Your task to perform on an android device: Search for alienware area 51 on newegg.com, select the first entry, and add it to the cart. Image 0: 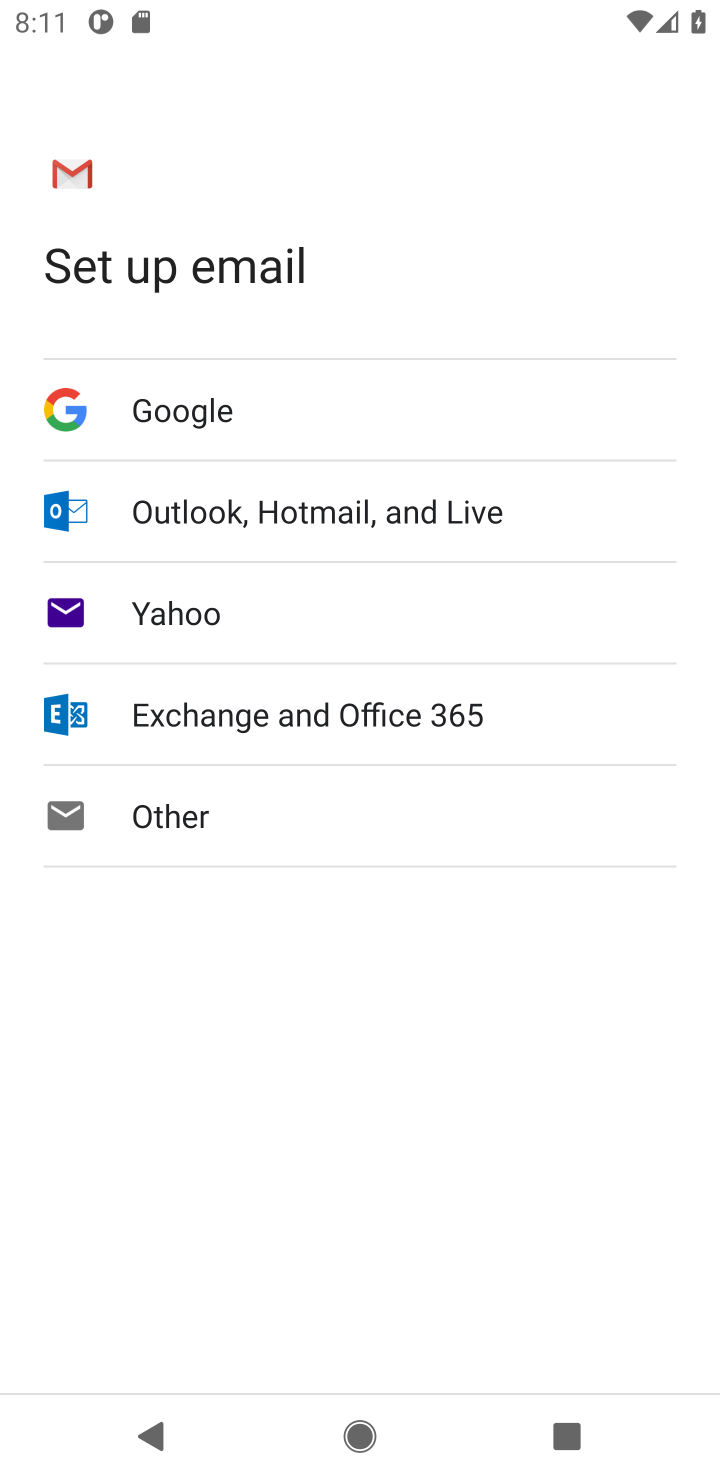
Step 0: press home button
Your task to perform on an android device: Search for alienware area 51 on newegg.com, select the first entry, and add it to the cart. Image 1: 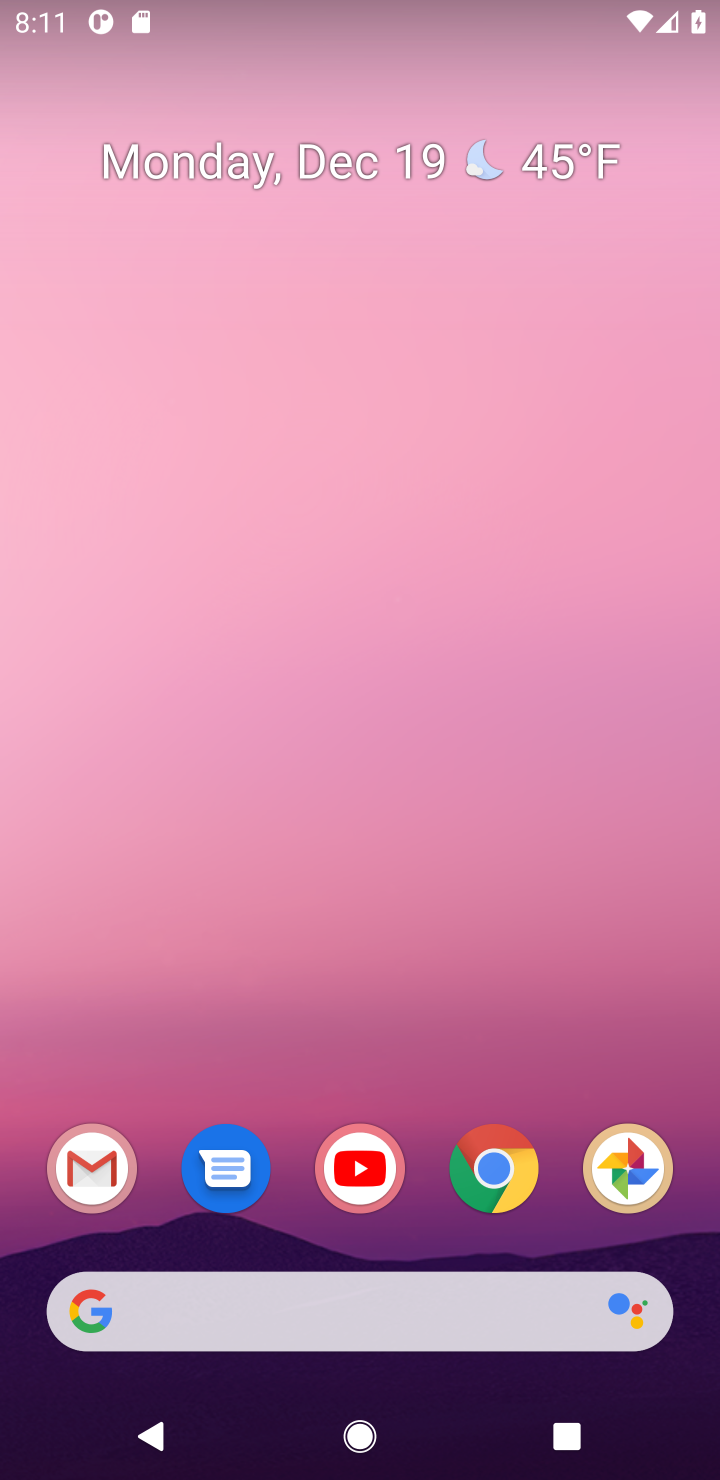
Step 1: click (507, 1179)
Your task to perform on an android device: Search for alienware area 51 on newegg.com, select the first entry, and add it to the cart. Image 2: 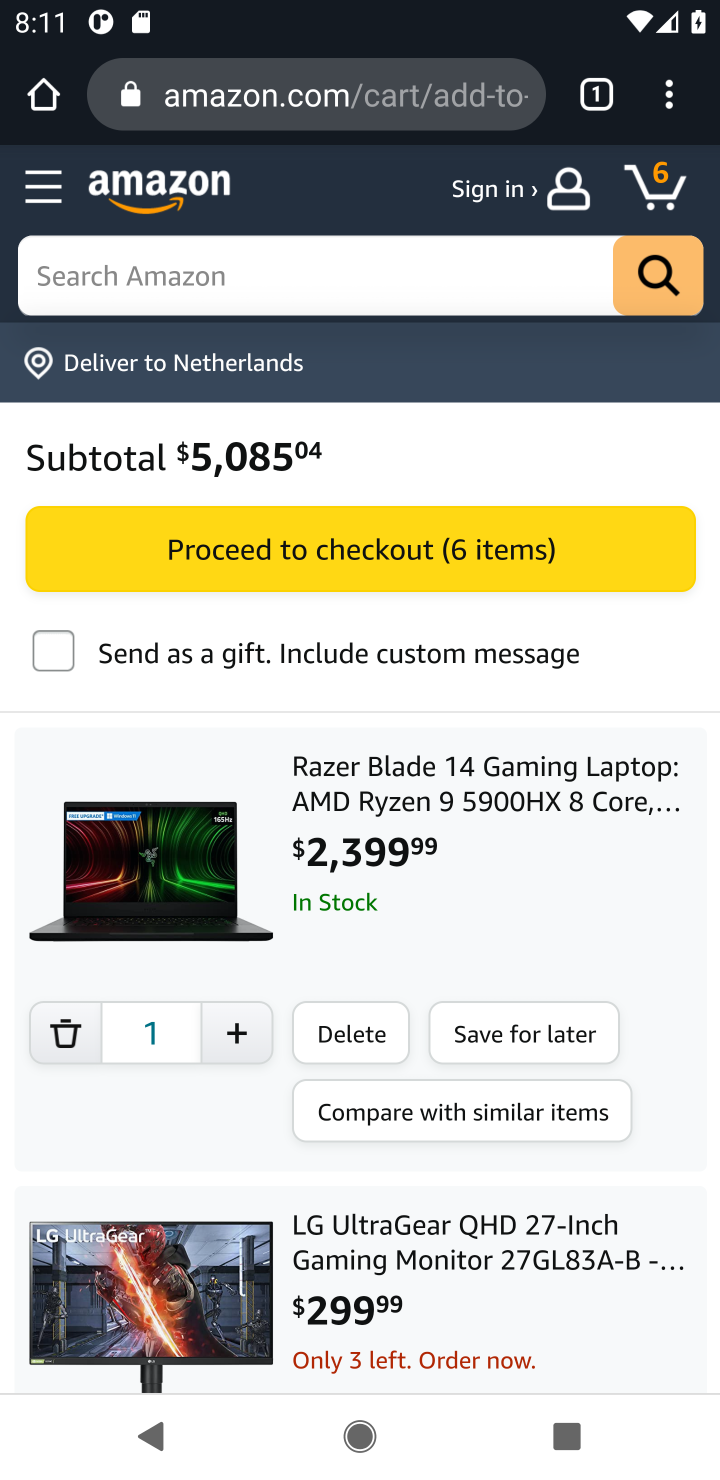
Step 2: click (260, 109)
Your task to perform on an android device: Search for alienware area 51 on newegg.com, select the first entry, and add it to the cart. Image 3: 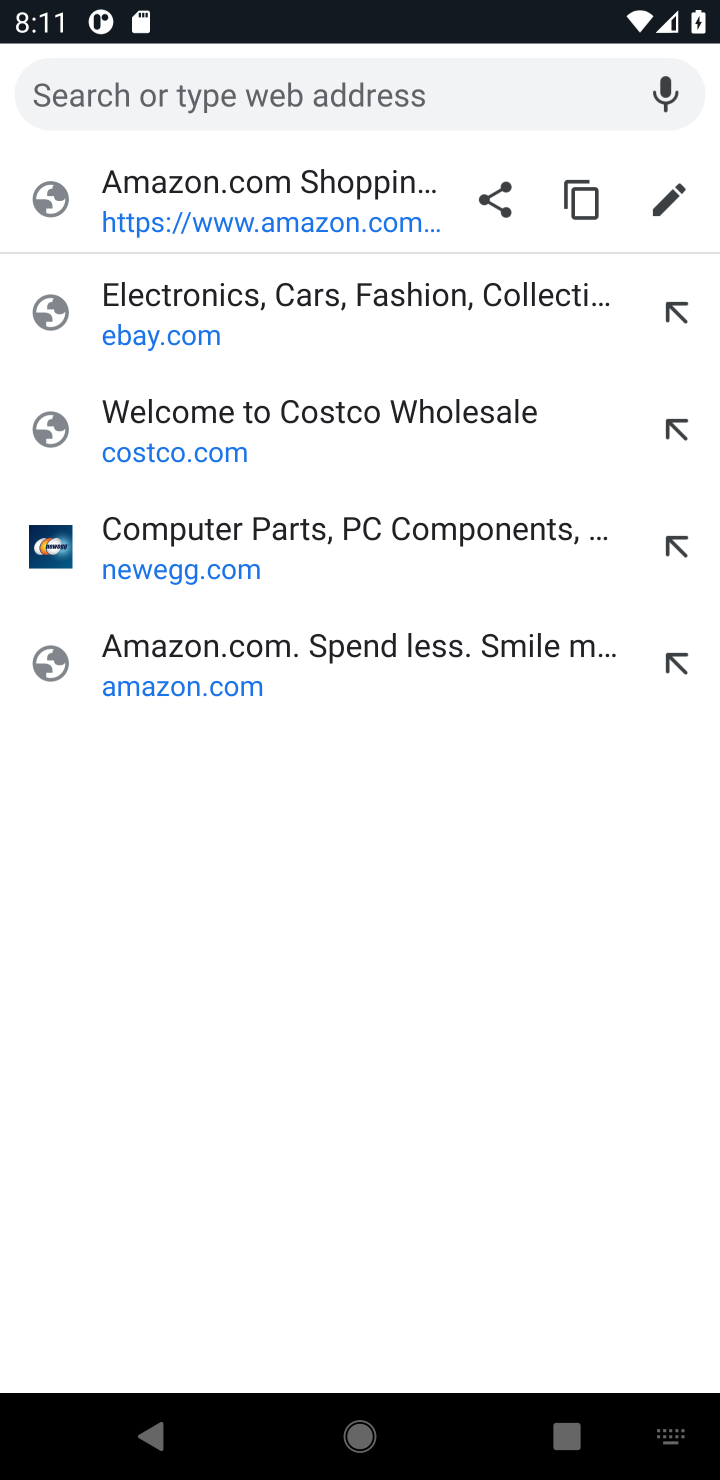
Step 3: click (152, 539)
Your task to perform on an android device: Search for alienware area 51 on newegg.com, select the first entry, and add it to the cart. Image 4: 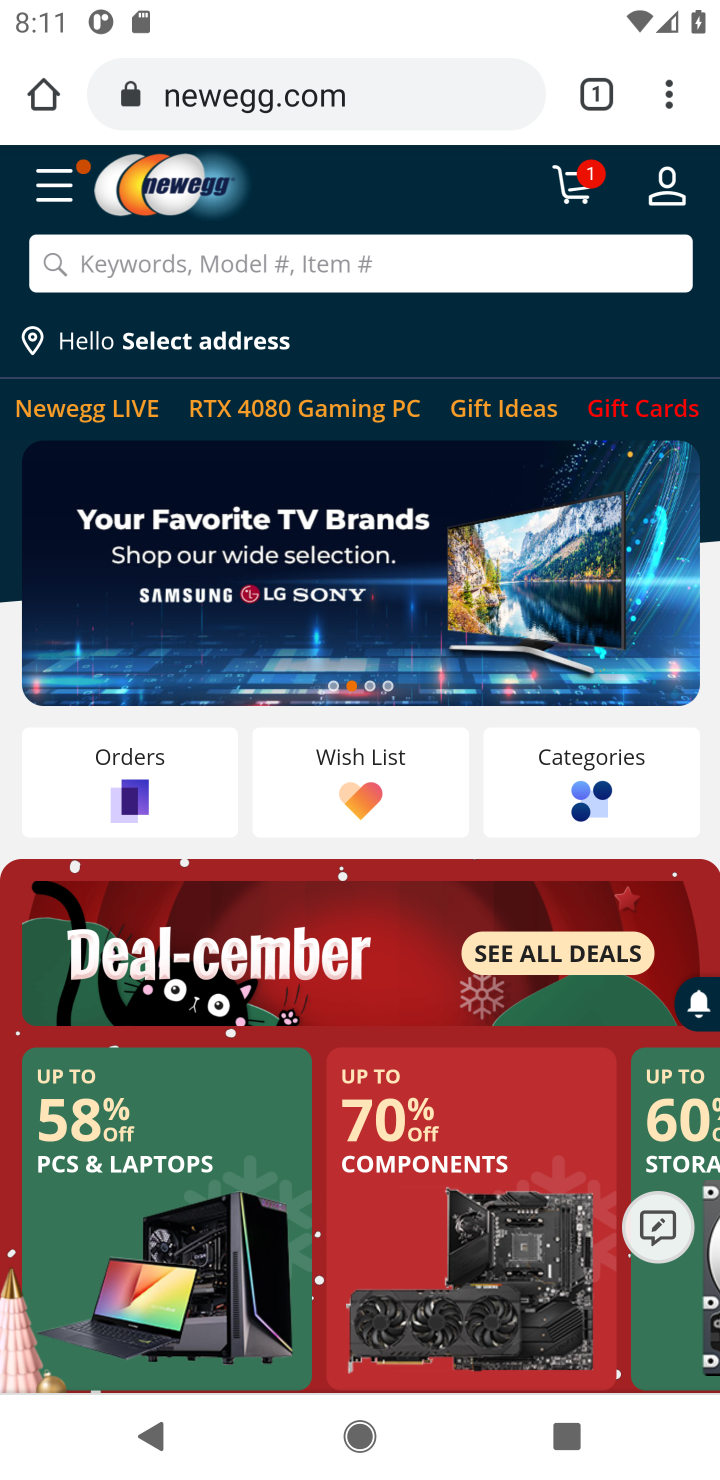
Step 4: click (110, 274)
Your task to perform on an android device: Search for alienware area 51 on newegg.com, select the first entry, and add it to the cart. Image 5: 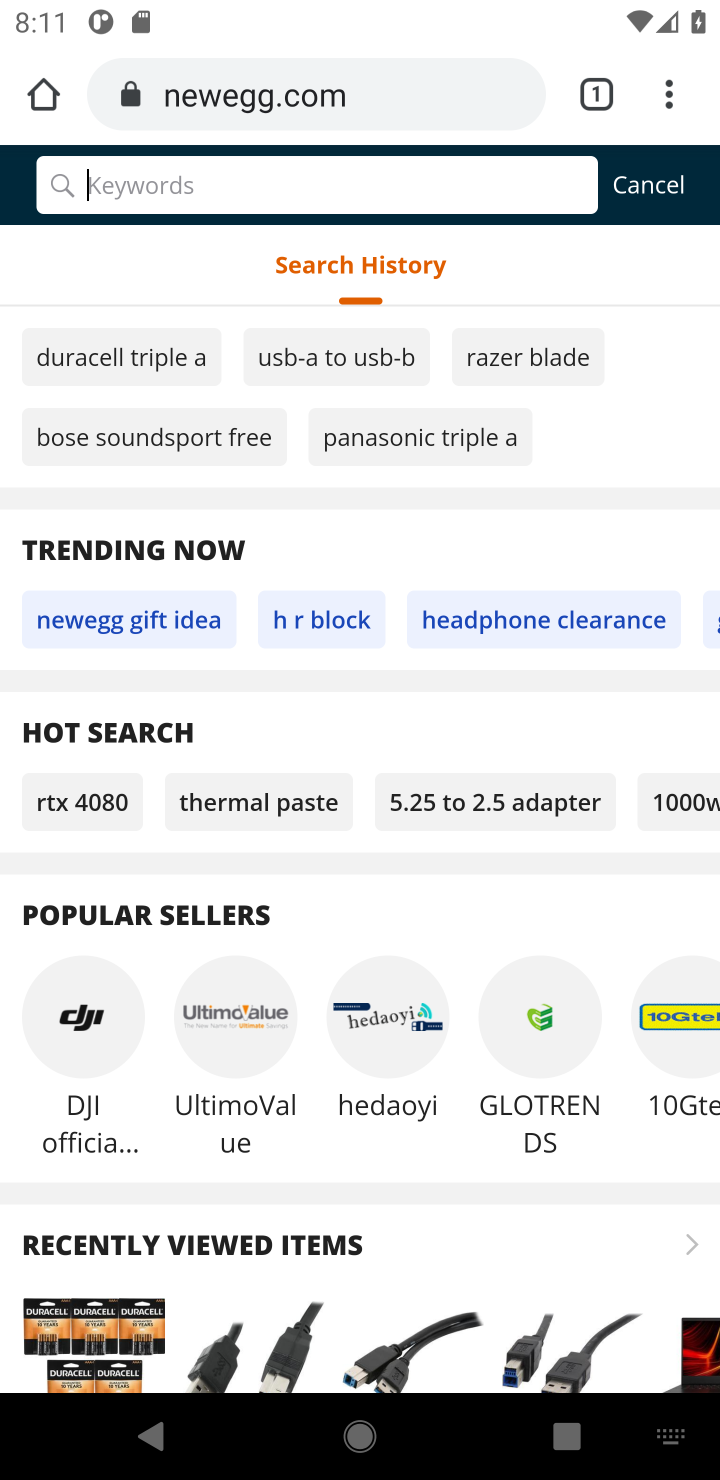
Step 5: type "alienware area 51"
Your task to perform on an android device: Search for alienware area 51 on newegg.com, select the first entry, and add it to the cart. Image 6: 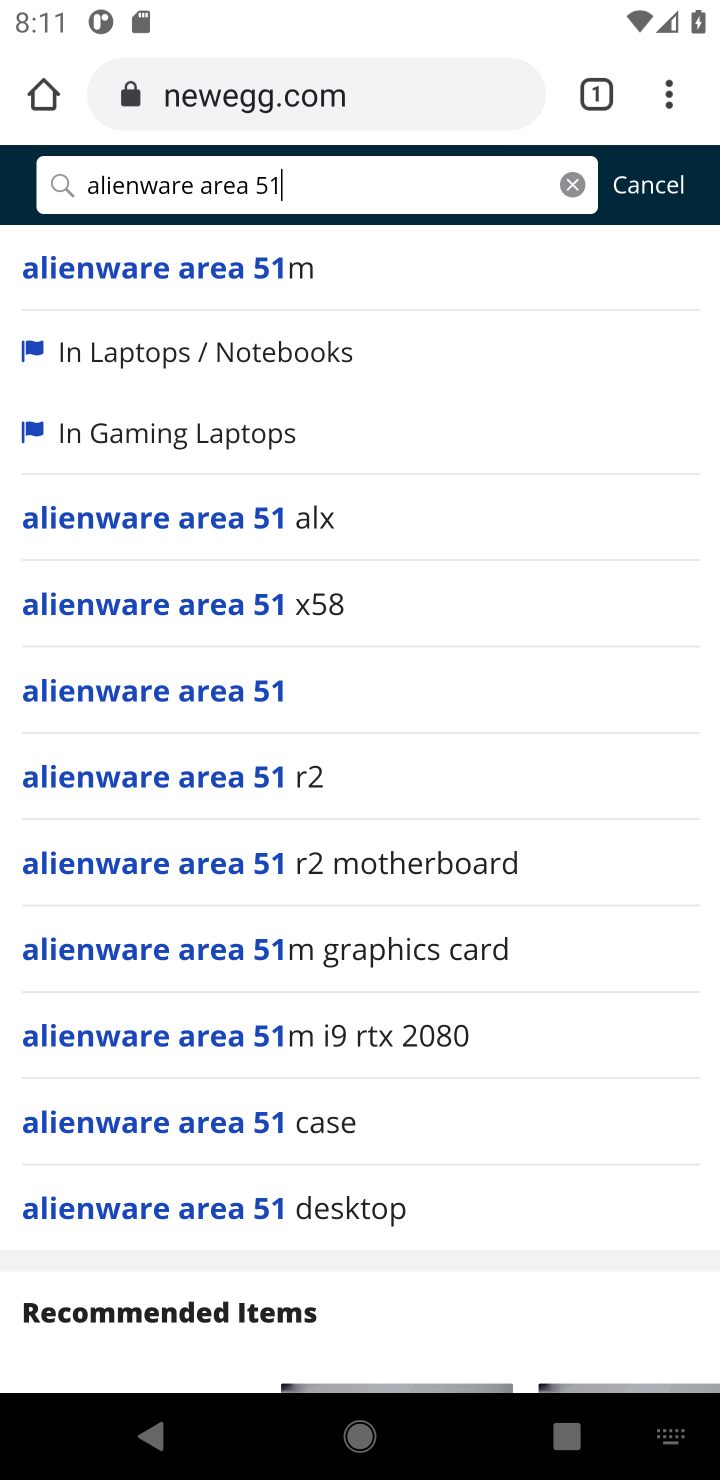
Step 6: click (213, 705)
Your task to perform on an android device: Search for alienware area 51 on newegg.com, select the first entry, and add it to the cart. Image 7: 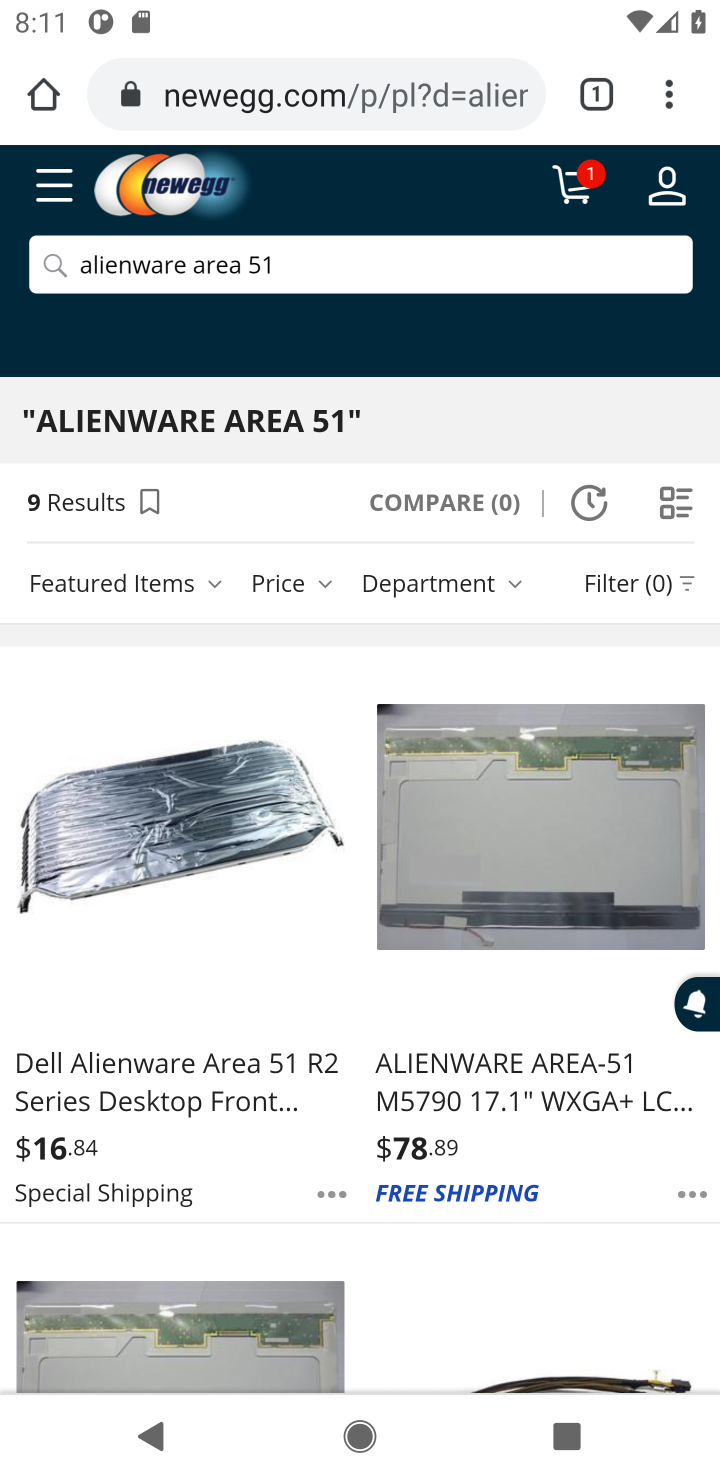
Step 7: click (95, 1086)
Your task to perform on an android device: Search for alienware area 51 on newegg.com, select the first entry, and add it to the cart. Image 8: 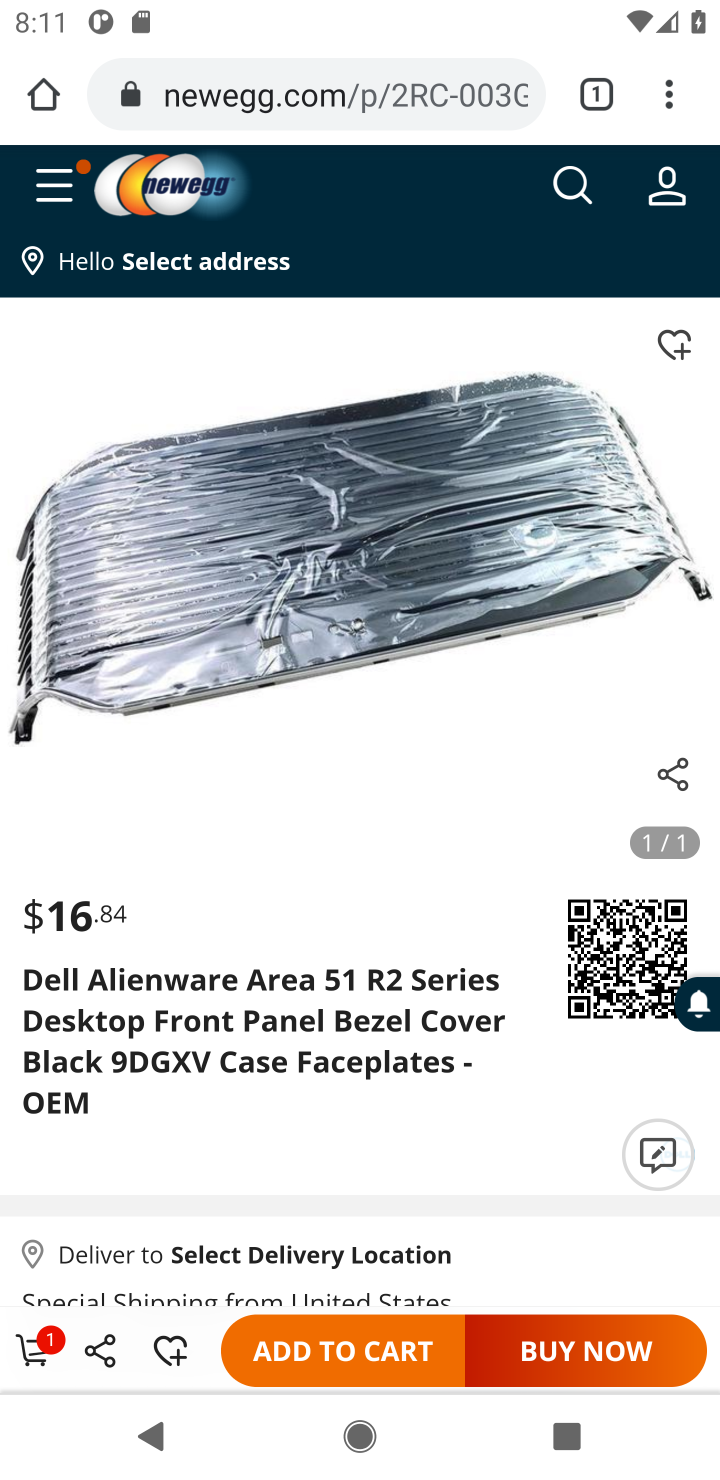
Step 8: click (312, 1354)
Your task to perform on an android device: Search for alienware area 51 on newegg.com, select the first entry, and add it to the cart. Image 9: 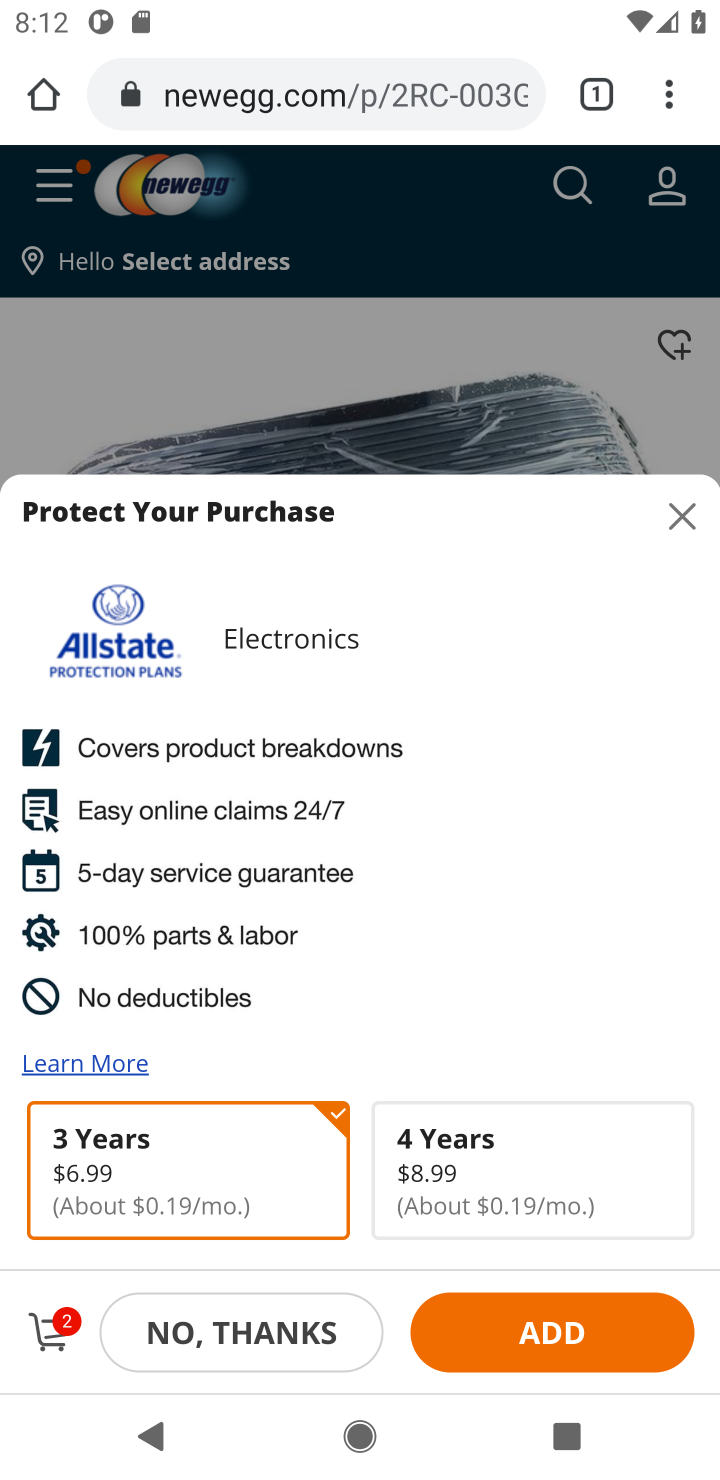
Step 9: task complete